Your task to perform on an android device: turn on javascript in the chrome app Image 0: 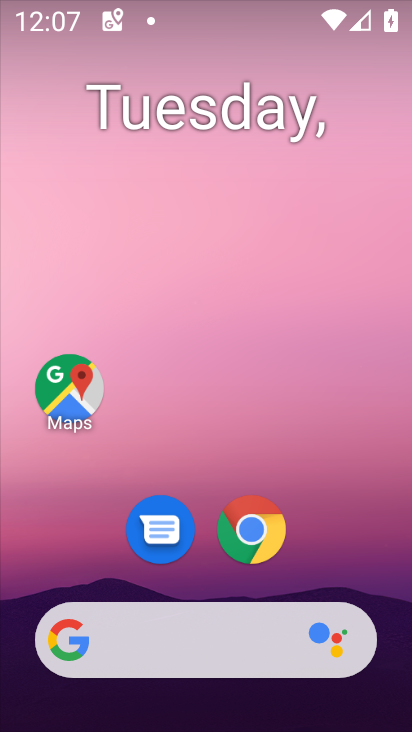
Step 0: press home button
Your task to perform on an android device: turn on javascript in the chrome app Image 1: 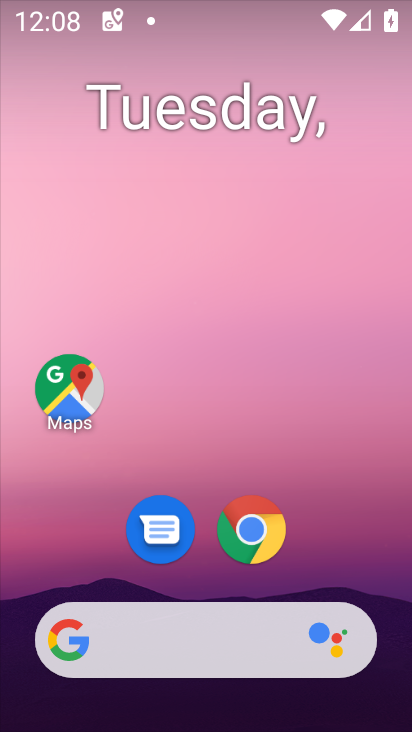
Step 1: drag from (214, 674) to (327, 144)
Your task to perform on an android device: turn on javascript in the chrome app Image 2: 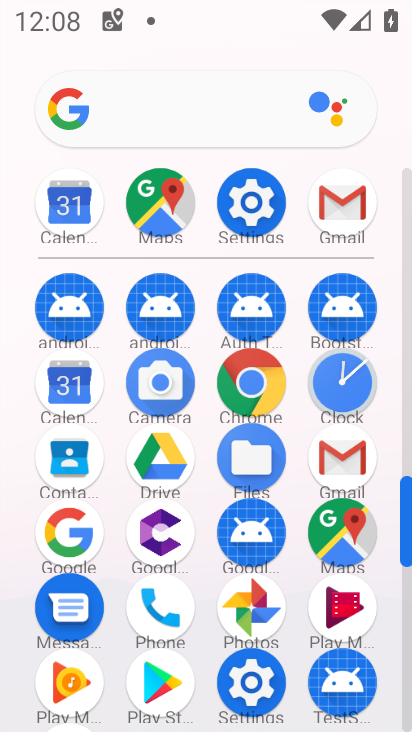
Step 2: click (255, 382)
Your task to perform on an android device: turn on javascript in the chrome app Image 3: 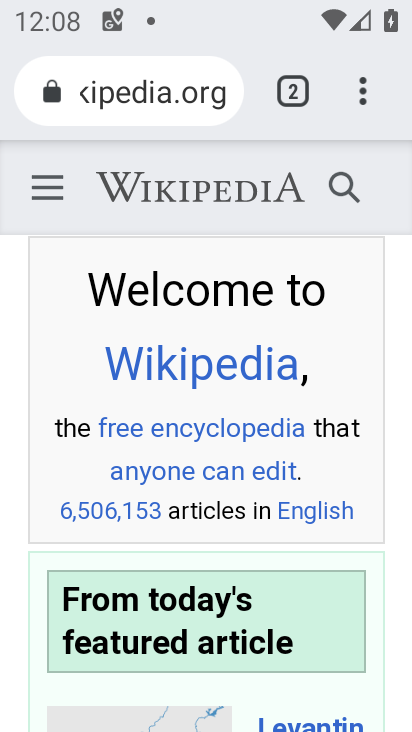
Step 3: click (358, 90)
Your task to perform on an android device: turn on javascript in the chrome app Image 4: 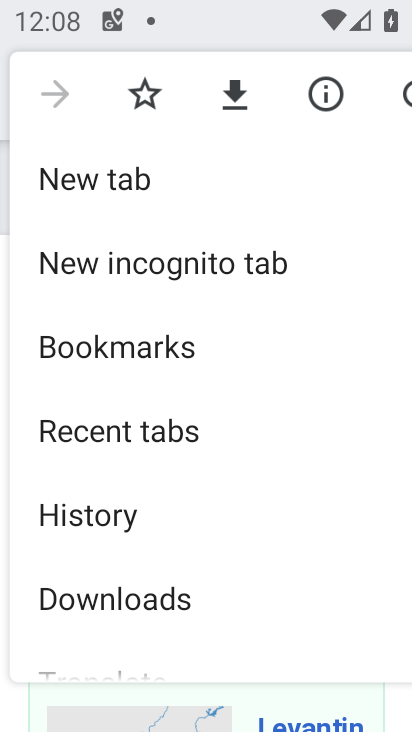
Step 4: drag from (167, 547) to (192, 244)
Your task to perform on an android device: turn on javascript in the chrome app Image 5: 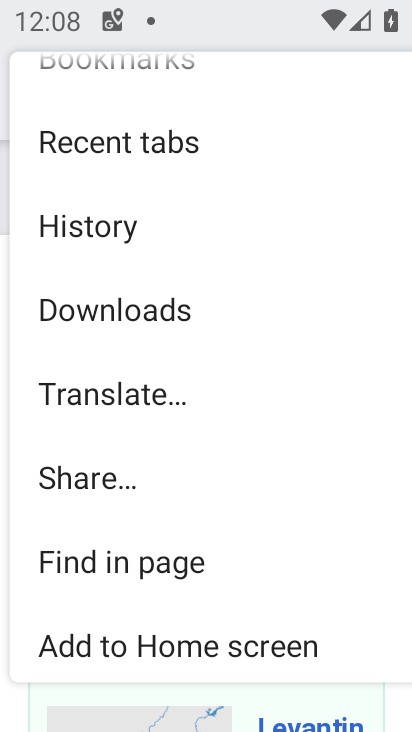
Step 5: drag from (132, 531) to (144, 347)
Your task to perform on an android device: turn on javascript in the chrome app Image 6: 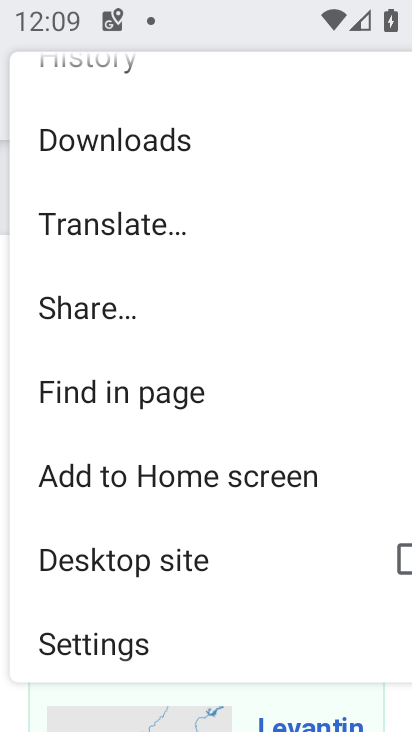
Step 6: click (87, 649)
Your task to perform on an android device: turn on javascript in the chrome app Image 7: 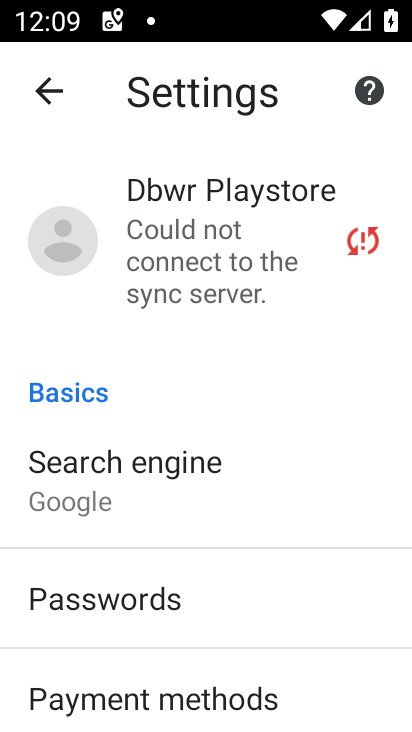
Step 7: drag from (90, 661) to (134, 135)
Your task to perform on an android device: turn on javascript in the chrome app Image 8: 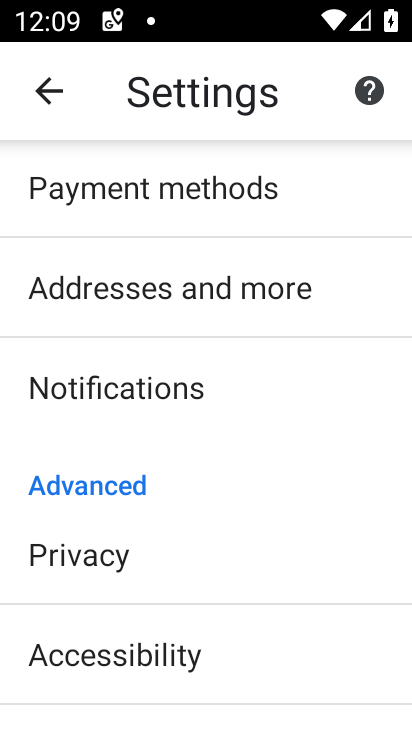
Step 8: drag from (133, 454) to (138, 178)
Your task to perform on an android device: turn on javascript in the chrome app Image 9: 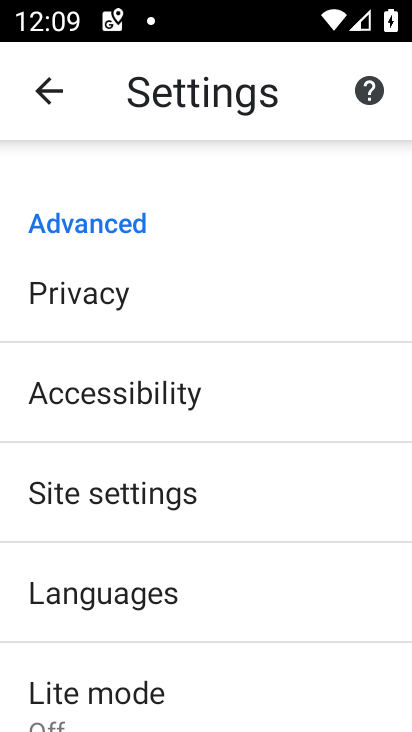
Step 9: click (126, 499)
Your task to perform on an android device: turn on javascript in the chrome app Image 10: 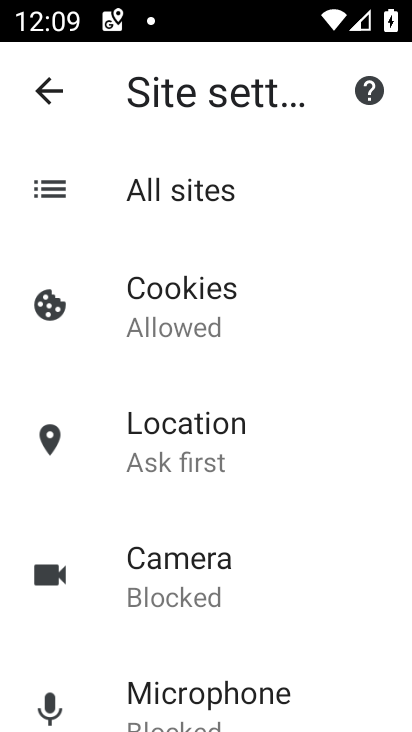
Step 10: drag from (157, 599) to (126, 291)
Your task to perform on an android device: turn on javascript in the chrome app Image 11: 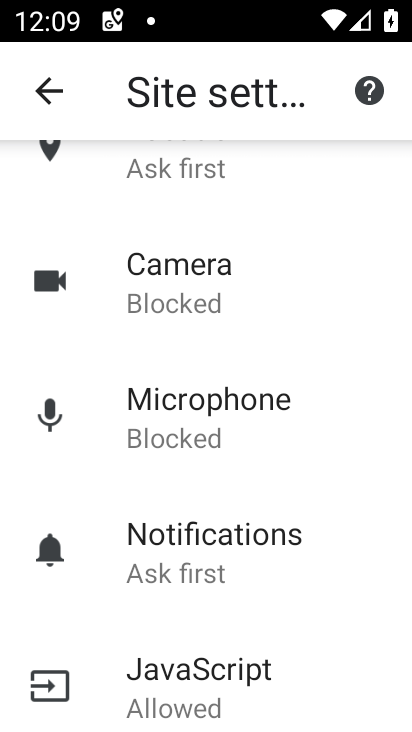
Step 11: click (181, 661)
Your task to perform on an android device: turn on javascript in the chrome app Image 12: 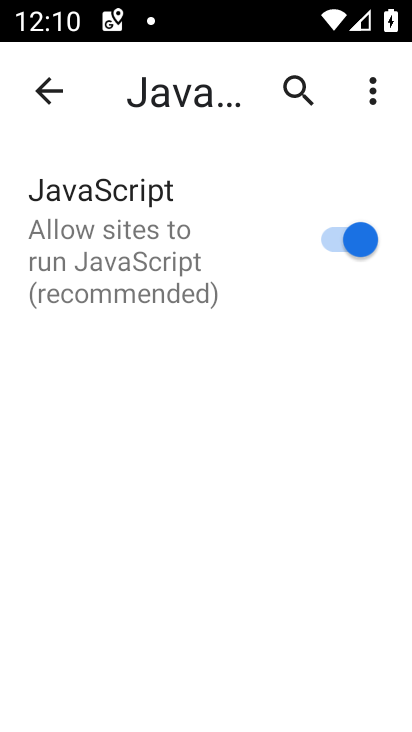
Step 12: task complete